Your task to perform on an android device: Open sound settings Image 0: 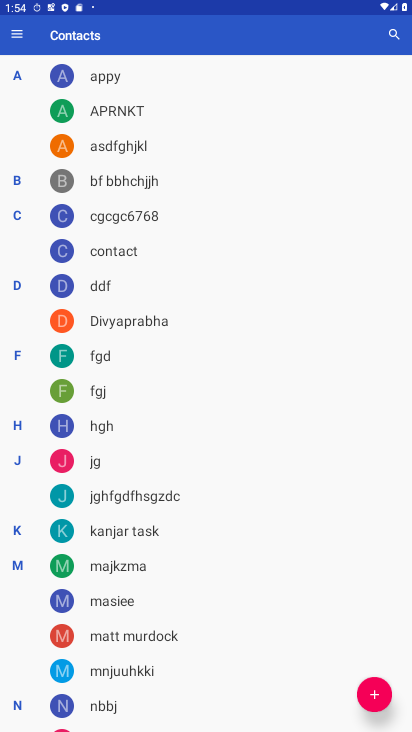
Step 0: press home button
Your task to perform on an android device: Open sound settings Image 1: 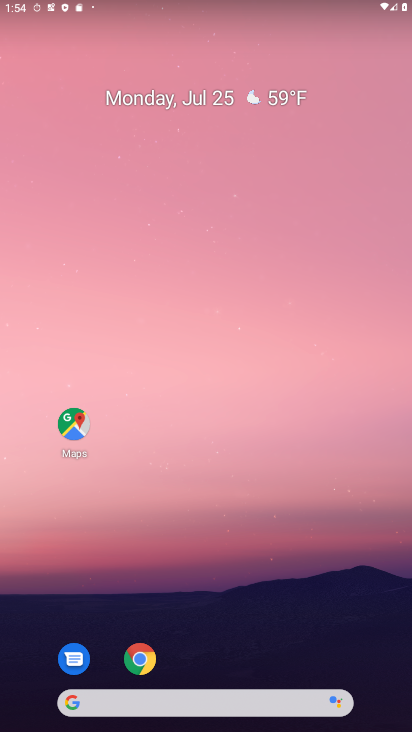
Step 1: drag from (210, 643) to (198, 3)
Your task to perform on an android device: Open sound settings Image 2: 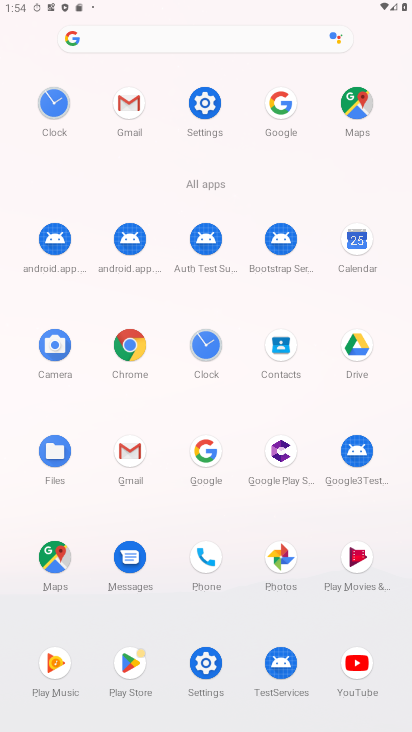
Step 2: click (198, 111)
Your task to perform on an android device: Open sound settings Image 3: 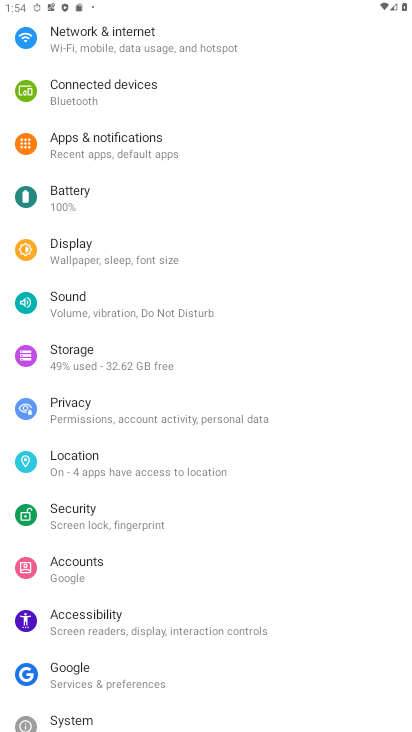
Step 3: click (63, 296)
Your task to perform on an android device: Open sound settings Image 4: 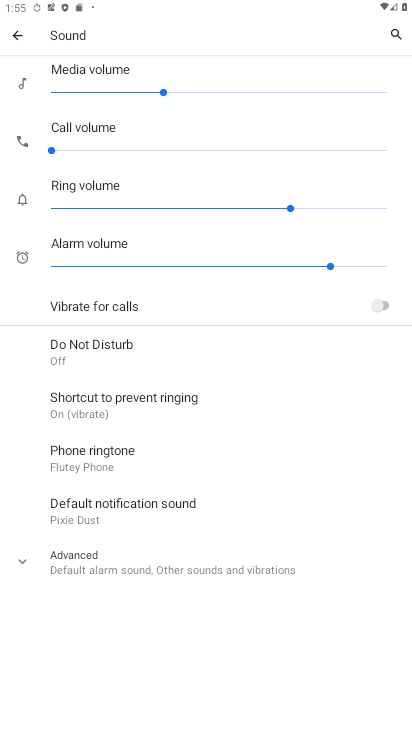
Step 4: task complete